Your task to perform on an android device: Open Google Image 0: 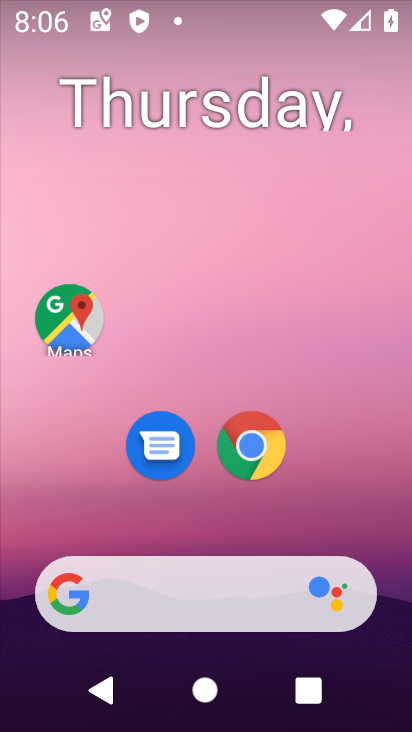
Step 0: drag from (393, 627) to (270, 110)
Your task to perform on an android device: Open Google Image 1: 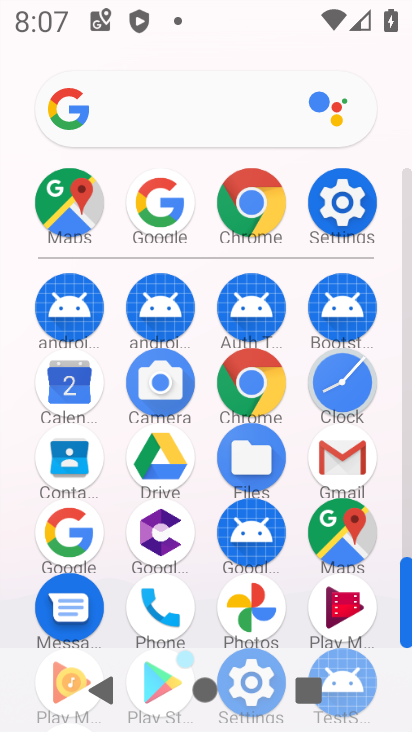
Step 1: click (80, 534)
Your task to perform on an android device: Open Google Image 2: 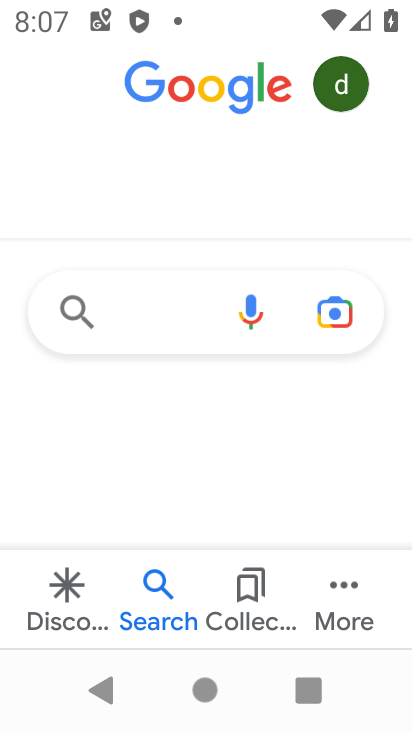
Step 2: task complete